Your task to perform on an android device: Open calendar and show me the third week of next month Image 0: 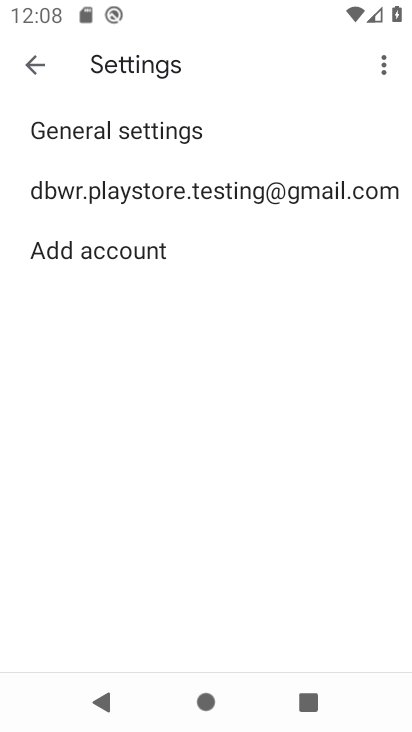
Step 0: press home button
Your task to perform on an android device: Open calendar and show me the third week of next month Image 1: 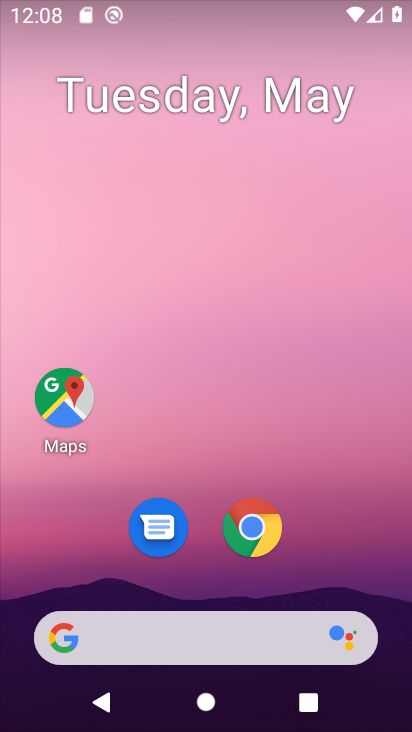
Step 1: drag from (211, 466) to (239, 16)
Your task to perform on an android device: Open calendar and show me the third week of next month Image 2: 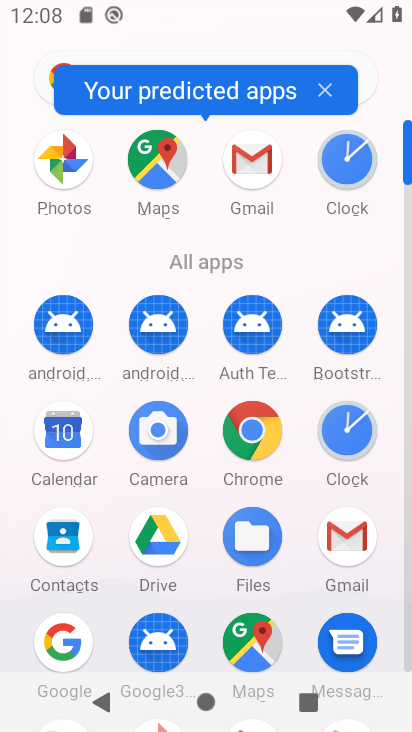
Step 2: click (65, 463)
Your task to perform on an android device: Open calendar and show me the third week of next month Image 3: 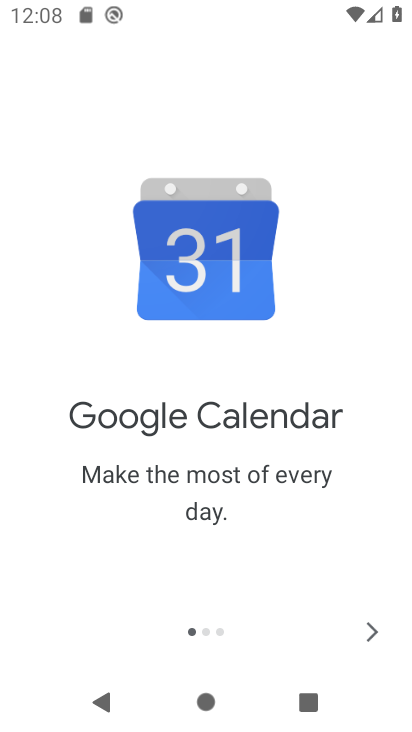
Step 3: click (364, 633)
Your task to perform on an android device: Open calendar and show me the third week of next month Image 4: 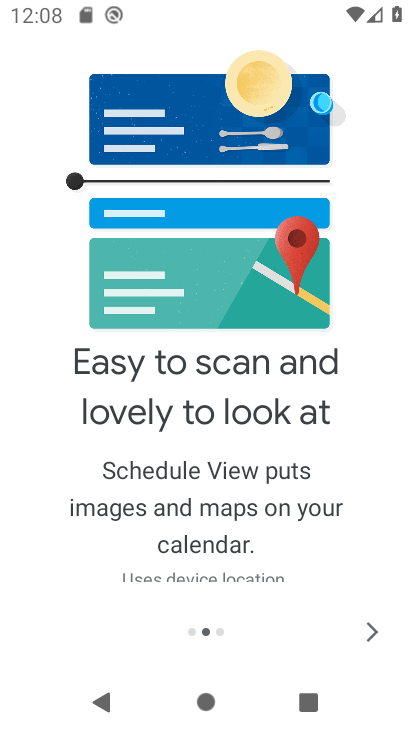
Step 4: click (377, 632)
Your task to perform on an android device: Open calendar and show me the third week of next month Image 5: 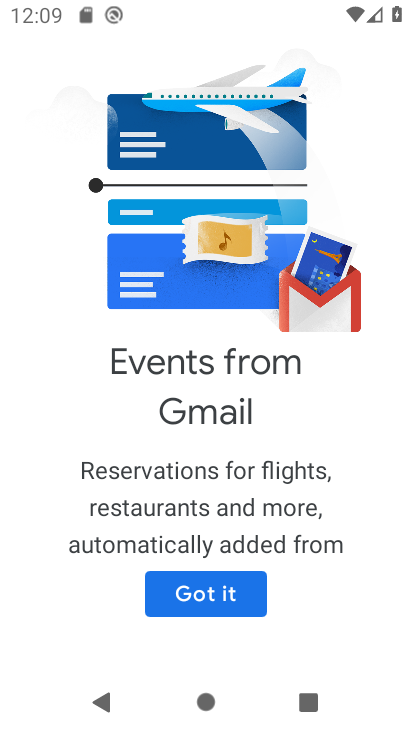
Step 5: click (236, 600)
Your task to perform on an android device: Open calendar and show me the third week of next month Image 6: 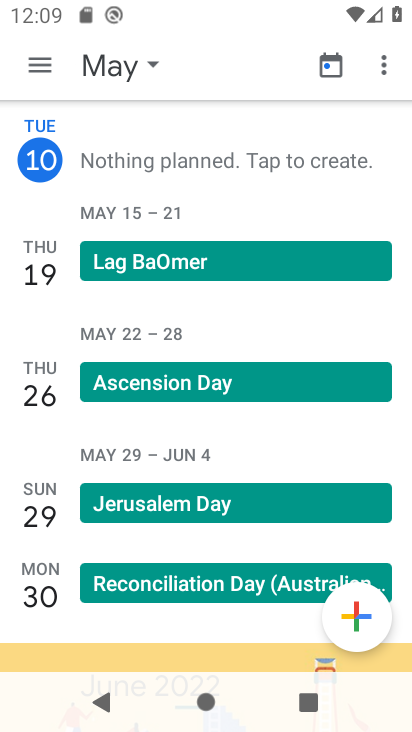
Step 6: click (112, 75)
Your task to perform on an android device: Open calendar and show me the third week of next month Image 7: 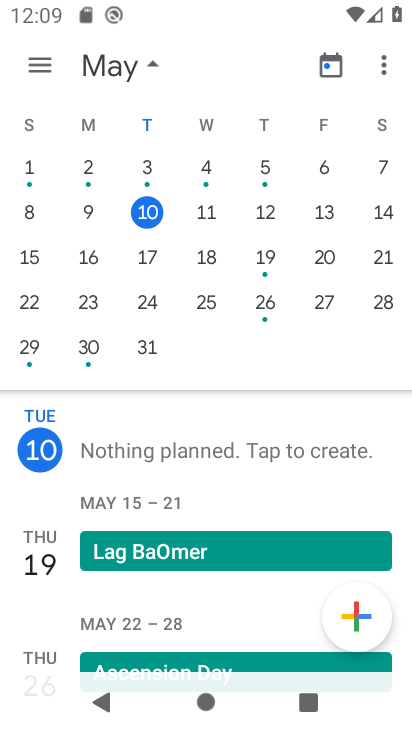
Step 7: drag from (343, 231) to (20, 267)
Your task to perform on an android device: Open calendar and show me the third week of next month Image 8: 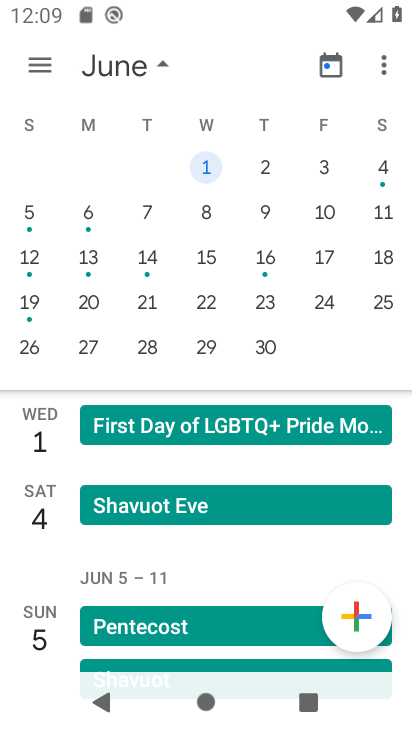
Step 8: click (29, 259)
Your task to perform on an android device: Open calendar and show me the third week of next month Image 9: 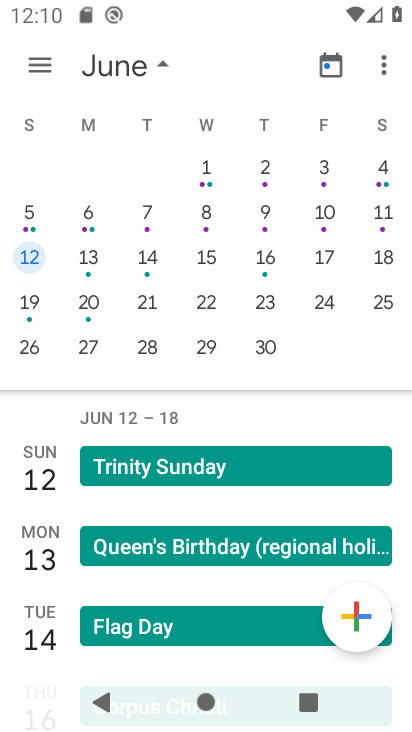
Step 9: task complete